Your task to perform on an android device: empty trash in the gmail app Image 0: 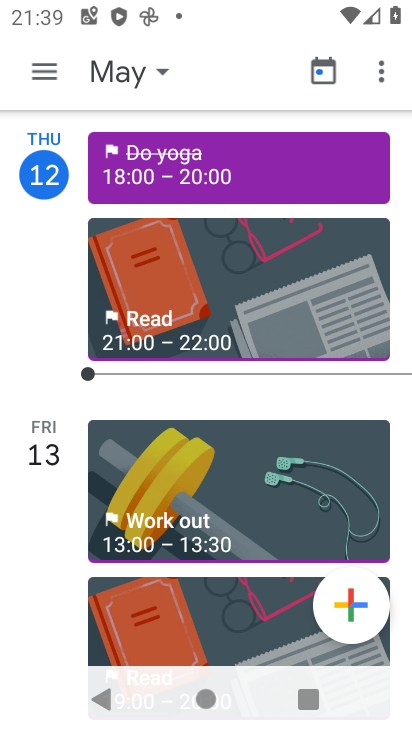
Step 0: press home button
Your task to perform on an android device: empty trash in the gmail app Image 1: 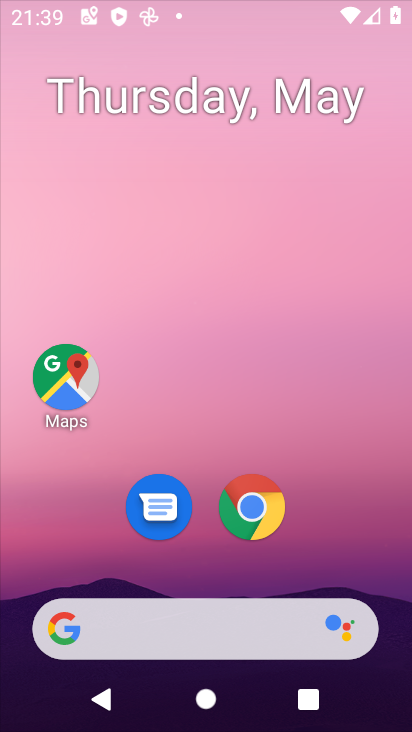
Step 1: drag from (253, 637) to (230, 216)
Your task to perform on an android device: empty trash in the gmail app Image 2: 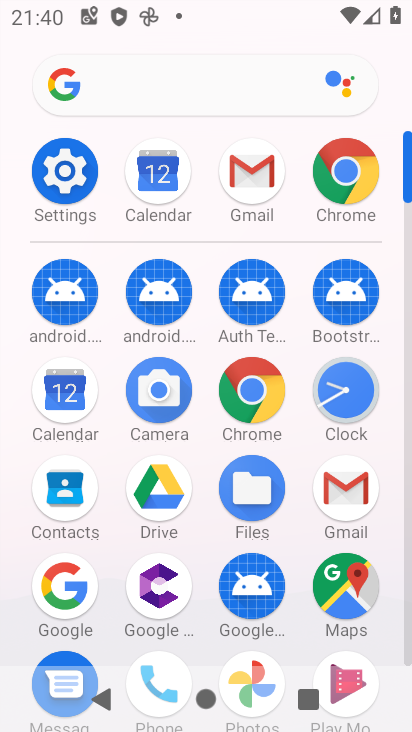
Step 2: click (242, 186)
Your task to perform on an android device: empty trash in the gmail app Image 3: 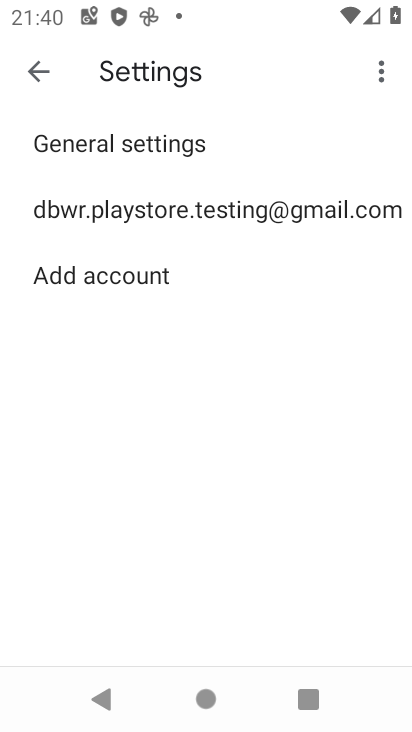
Step 3: click (44, 84)
Your task to perform on an android device: empty trash in the gmail app Image 4: 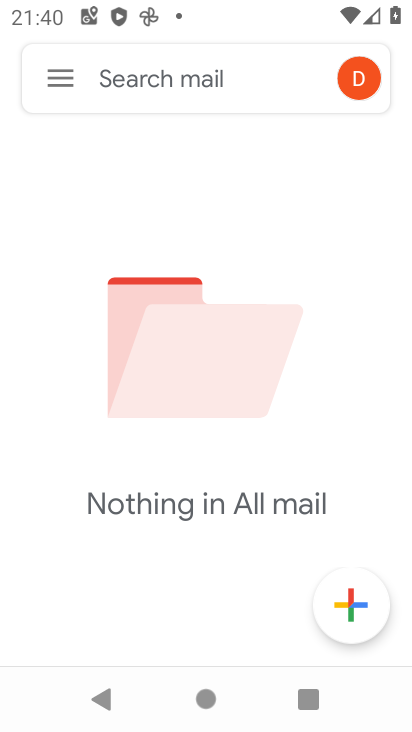
Step 4: click (44, 83)
Your task to perform on an android device: empty trash in the gmail app Image 5: 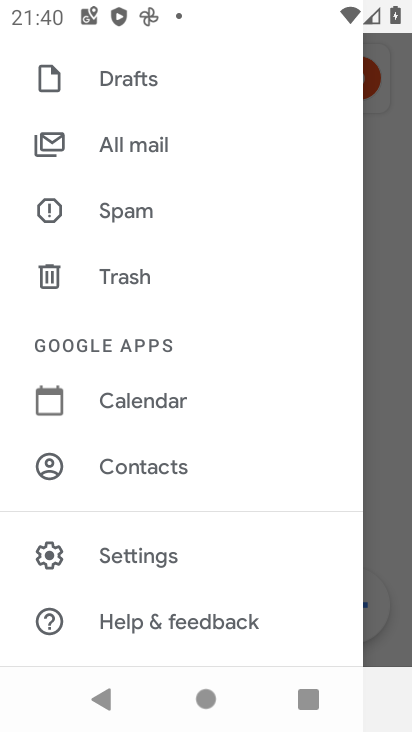
Step 5: click (128, 265)
Your task to perform on an android device: empty trash in the gmail app Image 6: 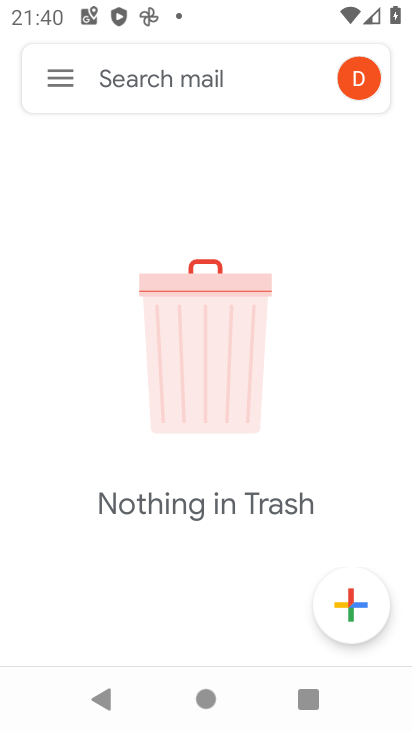
Step 6: task complete